Your task to perform on an android device: make emails show in primary in the gmail app Image 0: 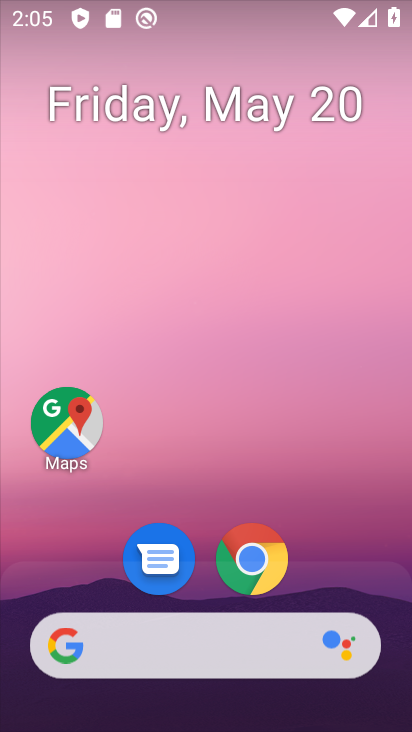
Step 0: drag from (337, 519) to (258, 13)
Your task to perform on an android device: make emails show in primary in the gmail app Image 1: 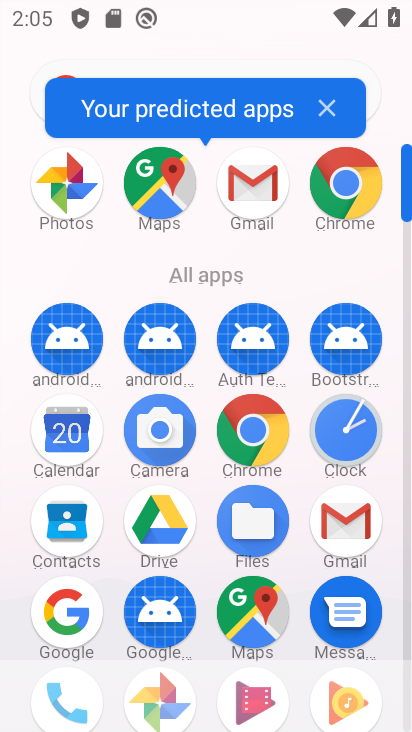
Step 1: click (252, 183)
Your task to perform on an android device: make emails show in primary in the gmail app Image 2: 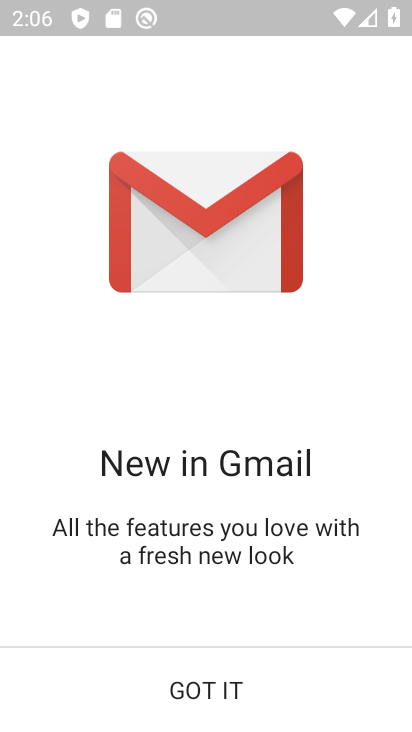
Step 2: click (203, 693)
Your task to perform on an android device: make emails show in primary in the gmail app Image 3: 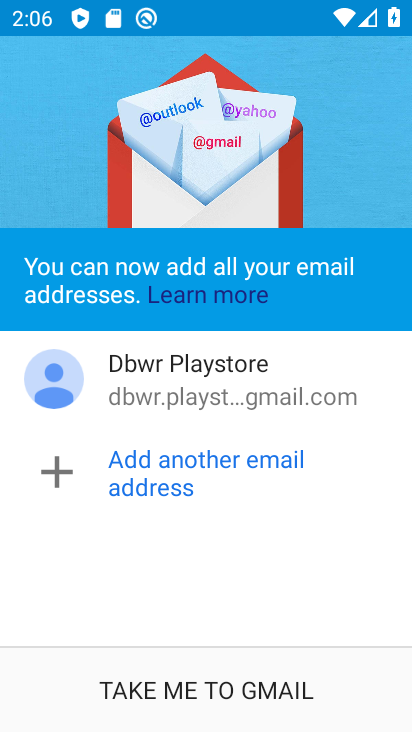
Step 3: click (203, 693)
Your task to perform on an android device: make emails show in primary in the gmail app Image 4: 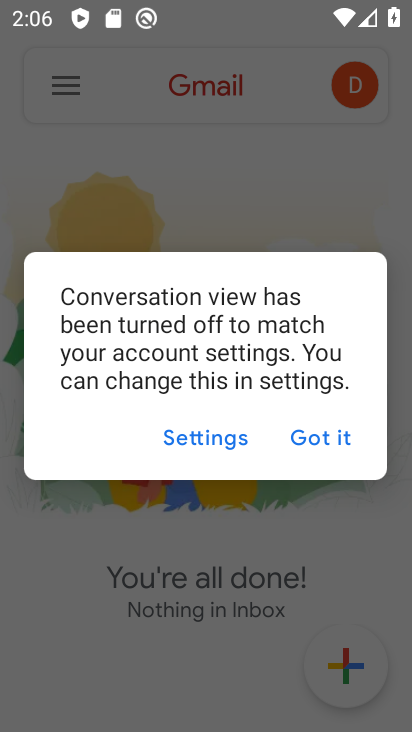
Step 4: click (320, 441)
Your task to perform on an android device: make emails show in primary in the gmail app Image 5: 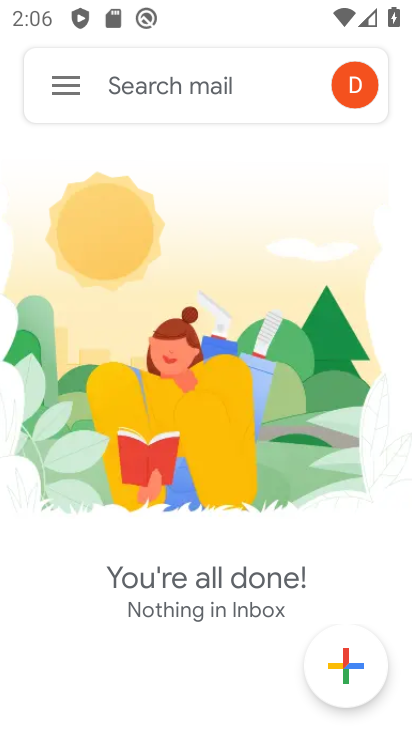
Step 5: click (64, 90)
Your task to perform on an android device: make emails show in primary in the gmail app Image 6: 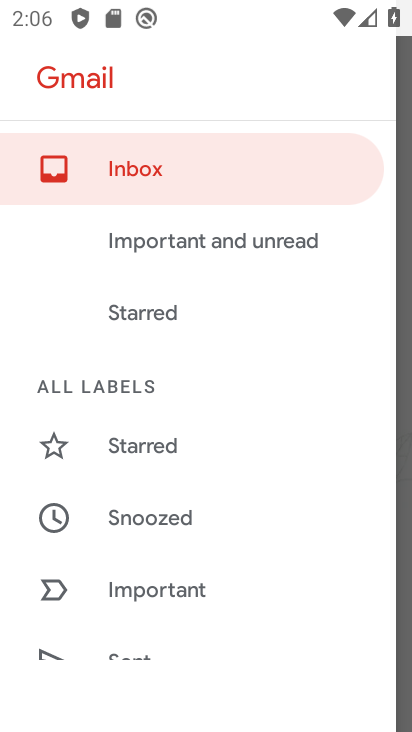
Step 6: drag from (148, 607) to (226, 483)
Your task to perform on an android device: make emails show in primary in the gmail app Image 7: 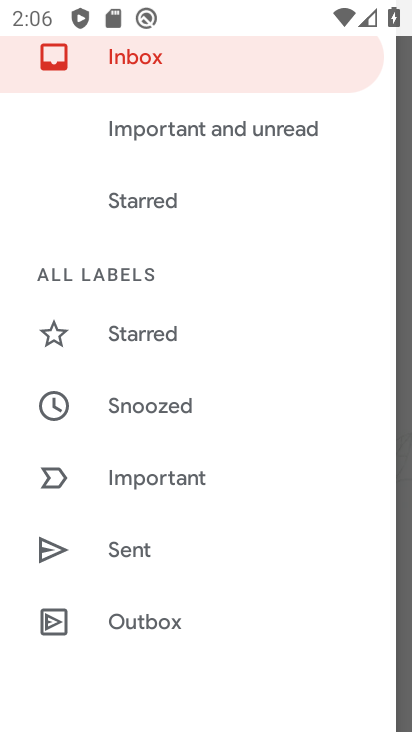
Step 7: drag from (157, 603) to (239, 484)
Your task to perform on an android device: make emails show in primary in the gmail app Image 8: 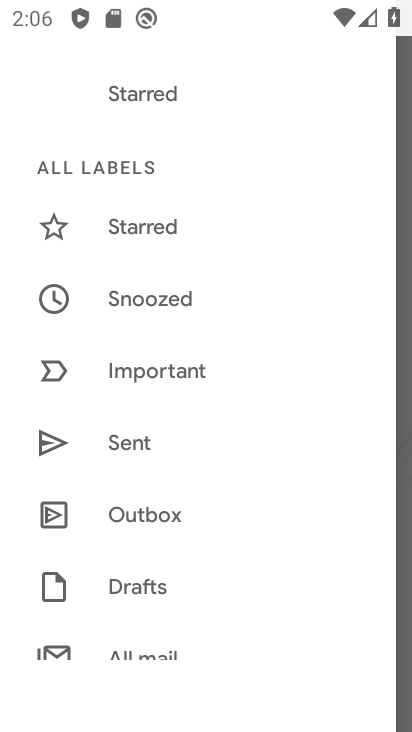
Step 8: drag from (155, 623) to (241, 479)
Your task to perform on an android device: make emails show in primary in the gmail app Image 9: 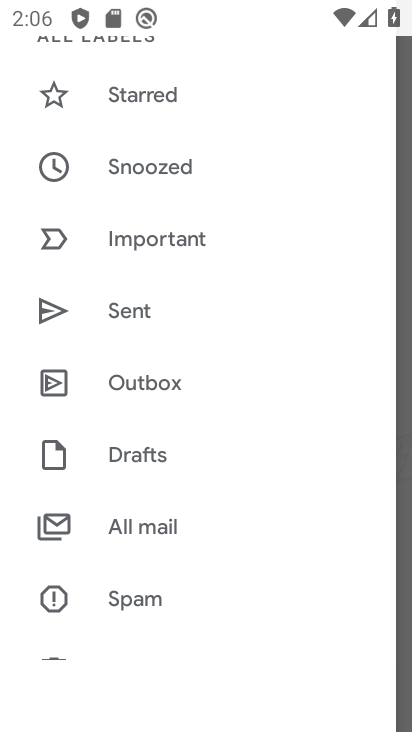
Step 9: drag from (144, 644) to (230, 488)
Your task to perform on an android device: make emails show in primary in the gmail app Image 10: 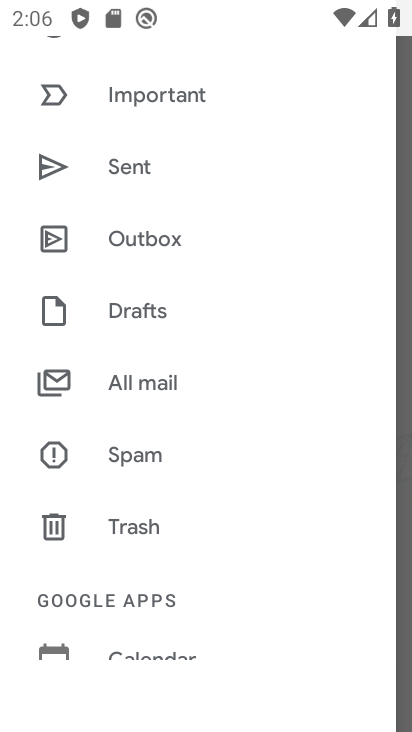
Step 10: drag from (122, 617) to (216, 471)
Your task to perform on an android device: make emails show in primary in the gmail app Image 11: 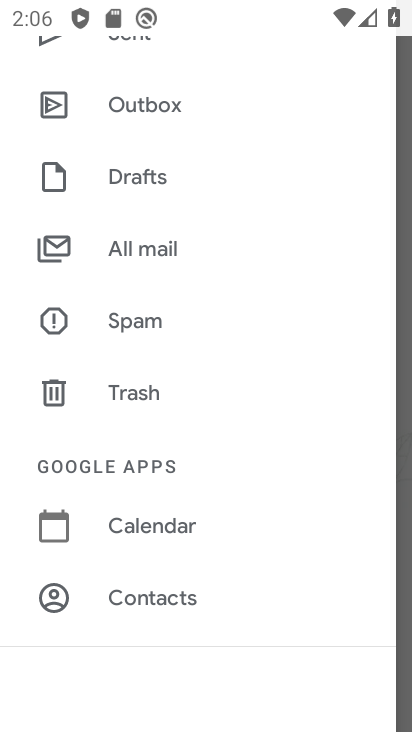
Step 11: drag from (152, 567) to (198, 412)
Your task to perform on an android device: make emails show in primary in the gmail app Image 12: 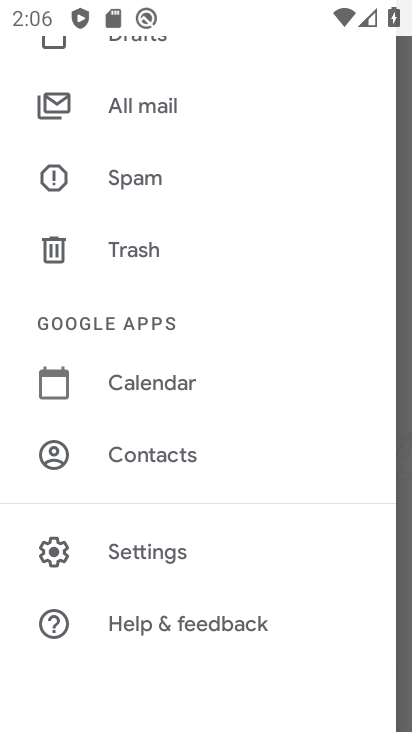
Step 12: click (153, 550)
Your task to perform on an android device: make emails show in primary in the gmail app Image 13: 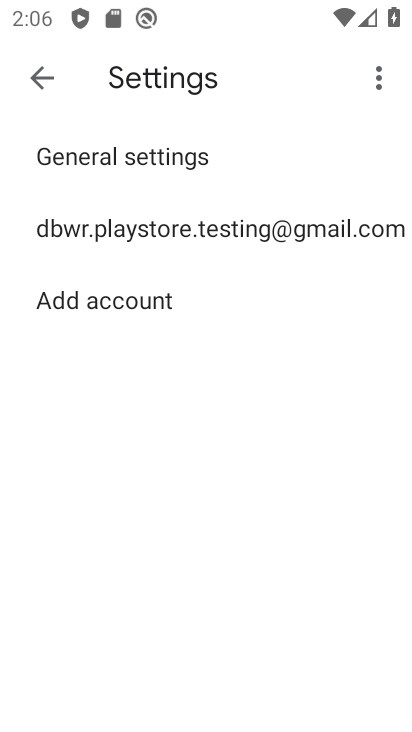
Step 13: click (128, 237)
Your task to perform on an android device: make emails show in primary in the gmail app Image 14: 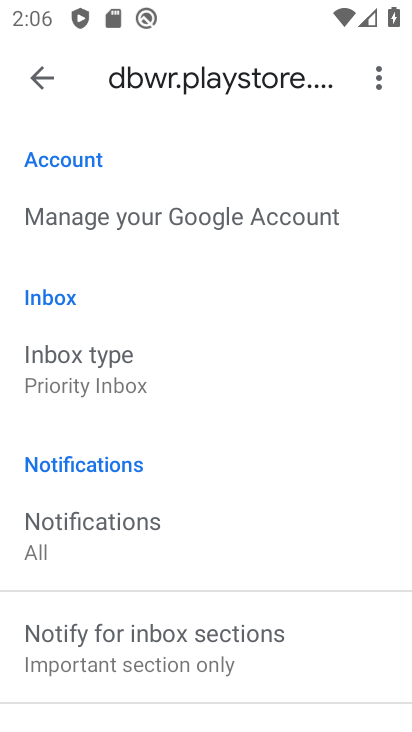
Step 14: drag from (127, 570) to (210, 428)
Your task to perform on an android device: make emails show in primary in the gmail app Image 15: 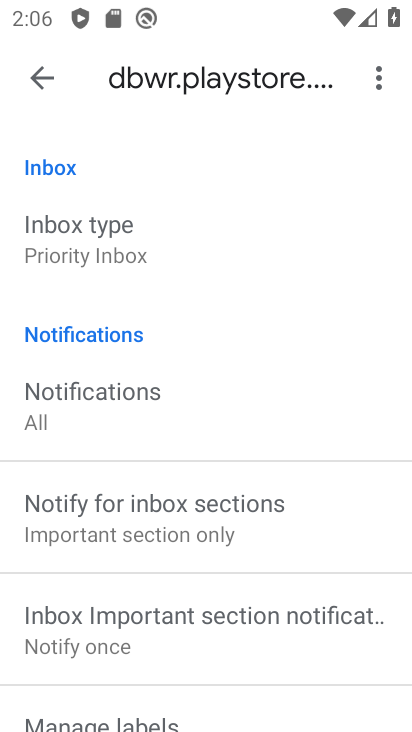
Step 15: click (105, 240)
Your task to perform on an android device: make emails show in primary in the gmail app Image 16: 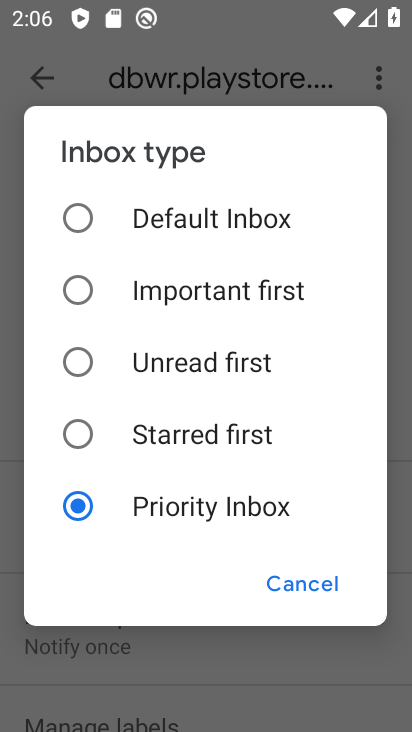
Step 16: click (80, 213)
Your task to perform on an android device: make emails show in primary in the gmail app Image 17: 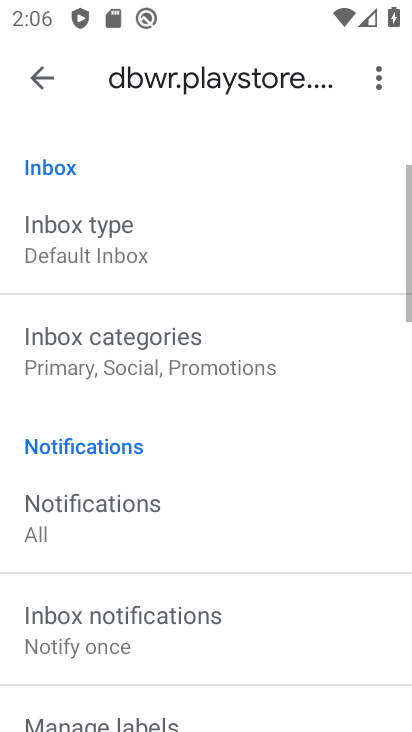
Step 17: click (128, 364)
Your task to perform on an android device: make emails show in primary in the gmail app Image 18: 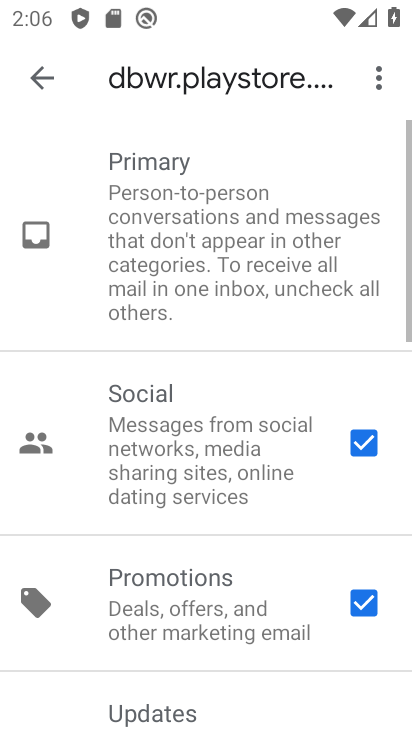
Step 18: click (360, 437)
Your task to perform on an android device: make emails show in primary in the gmail app Image 19: 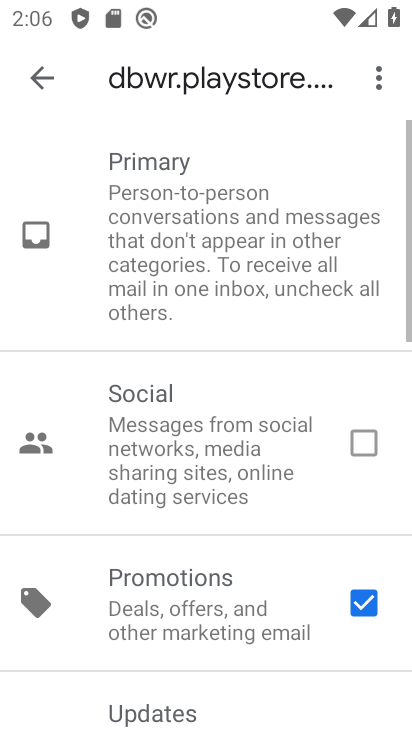
Step 19: click (359, 609)
Your task to perform on an android device: make emails show in primary in the gmail app Image 20: 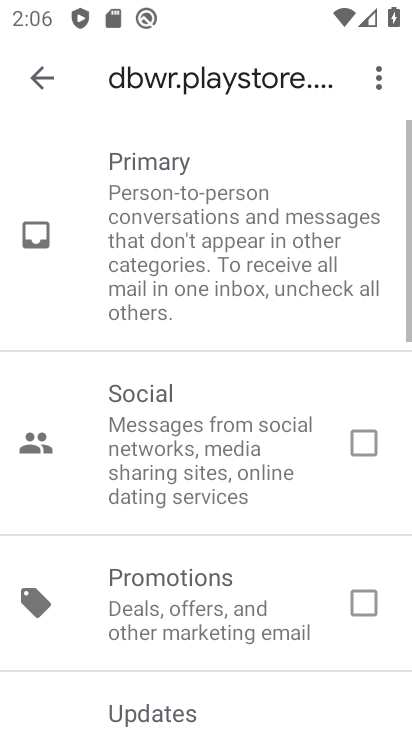
Step 20: task complete